Your task to perform on an android device: search for starred emails in the gmail app Image 0: 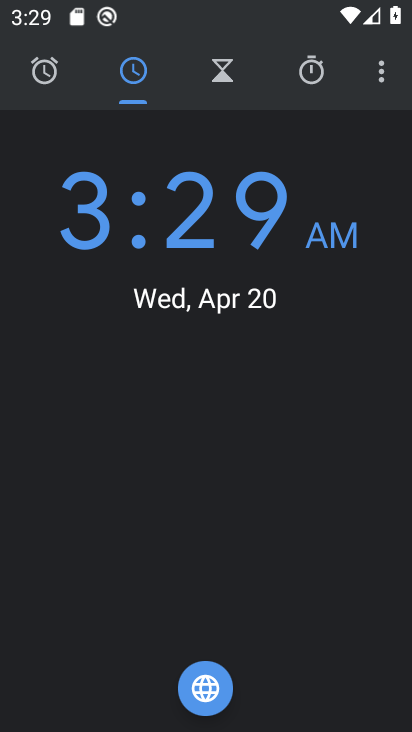
Step 0: click (386, 73)
Your task to perform on an android device: search for starred emails in the gmail app Image 1: 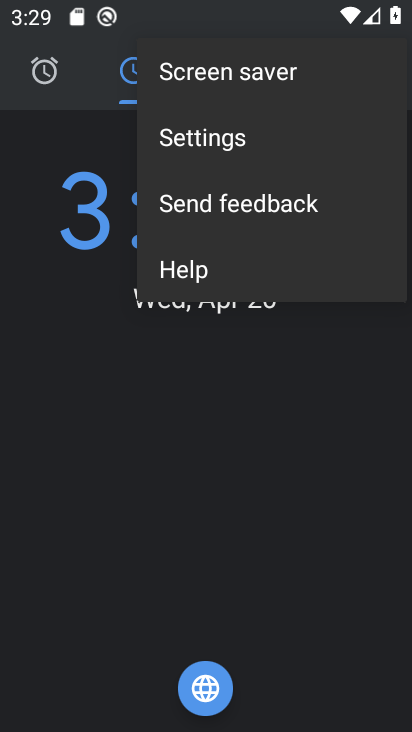
Step 1: press home button
Your task to perform on an android device: search for starred emails in the gmail app Image 2: 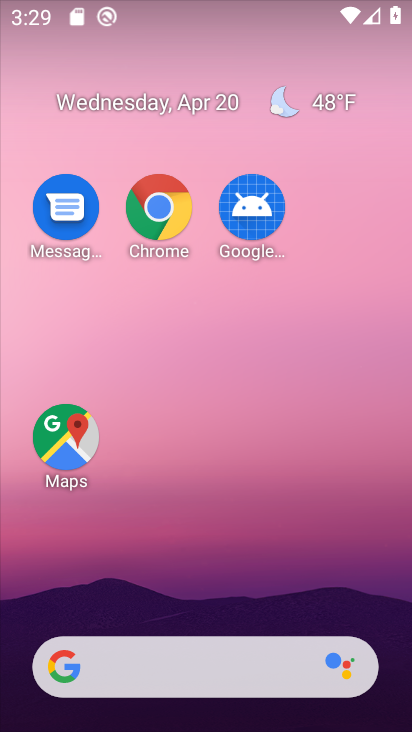
Step 2: drag from (296, 549) to (353, 41)
Your task to perform on an android device: search for starred emails in the gmail app Image 3: 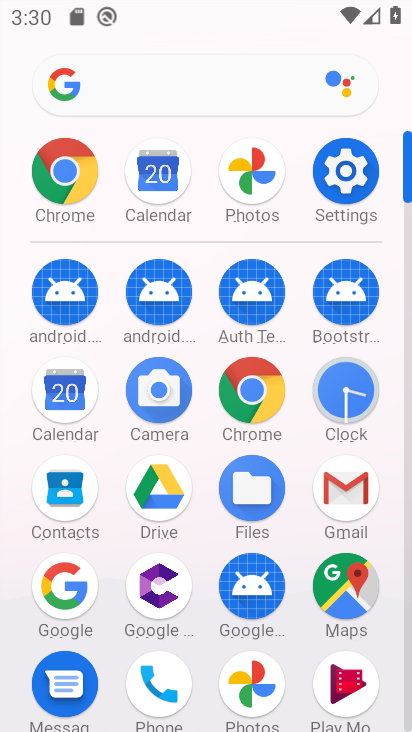
Step 3: click (338, 491)
Your task to perform on an android device: search for starred emails in the gmail app Image 4: 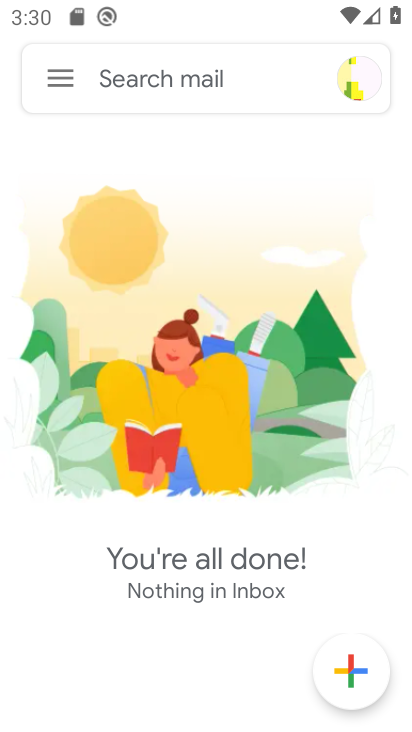
Step 4: click (64, 72)
Your task to perform on an android device: search for starred emails in the gmail app Image 5: 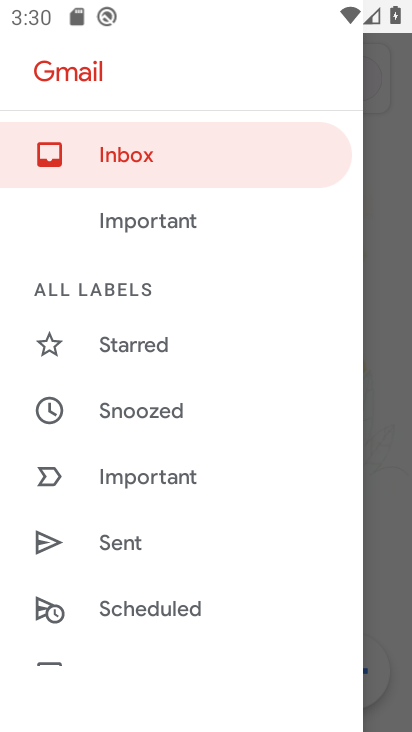
Step 5: click (142, 342)
Your task to perform on an android device: search for starred emails in the gmail app Image 6: 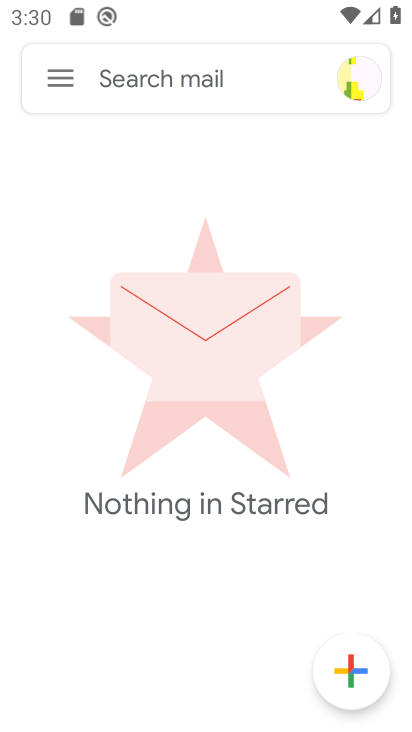
Step 6: task complete